Your task to perform on an android device: Show me productivity apps on the Play Store Image 0: 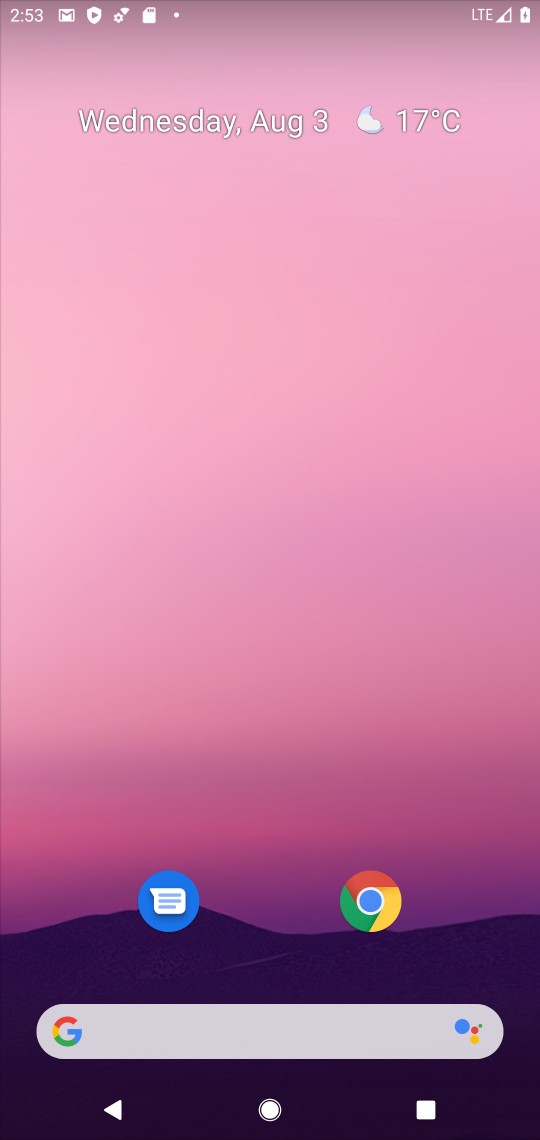
Step 0: drag from (195, 926) to (241, 211)
Your task to perform on an android device: Show me productivity apps on the Play Store Image 1: 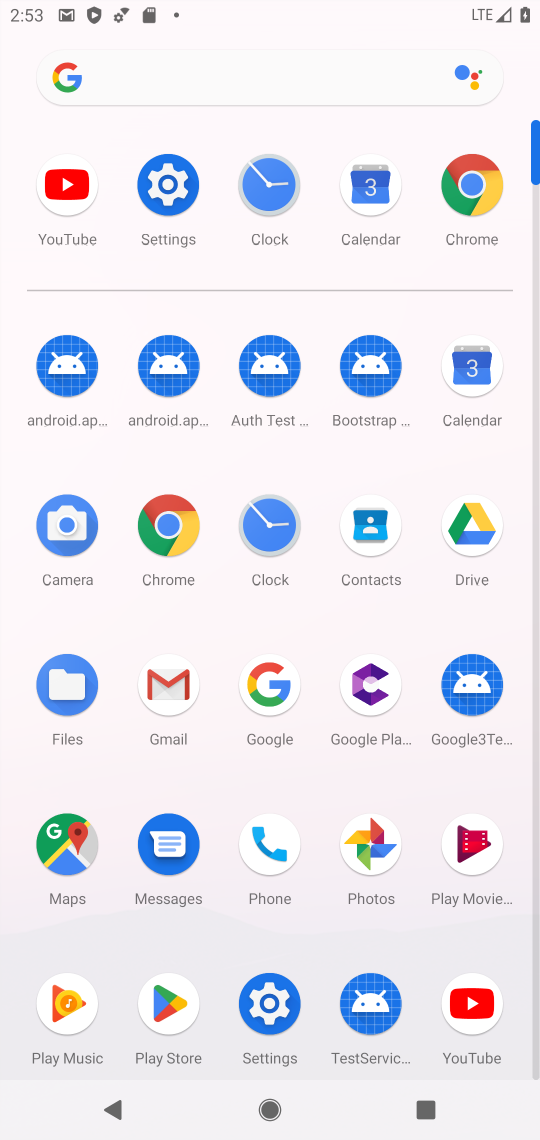
Step 1: click (152, 1031)
Your task to perform on an android device: Show me productivity apps on the Play Store Image 2: 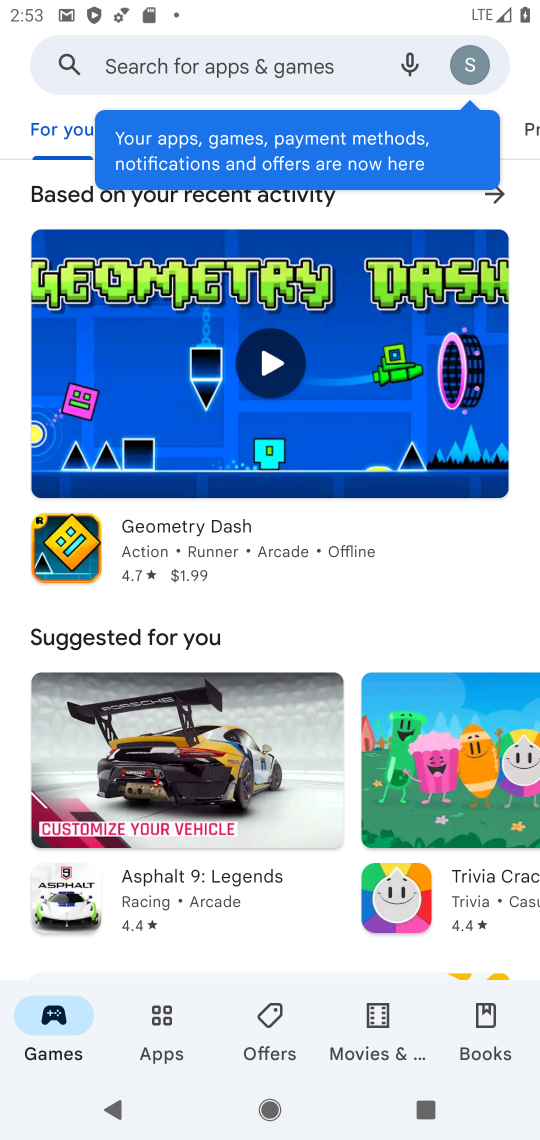
Step 2: click (152, 1031)
Your task to perform on an android device: Show me productivity apps on the Play Store Image 3: 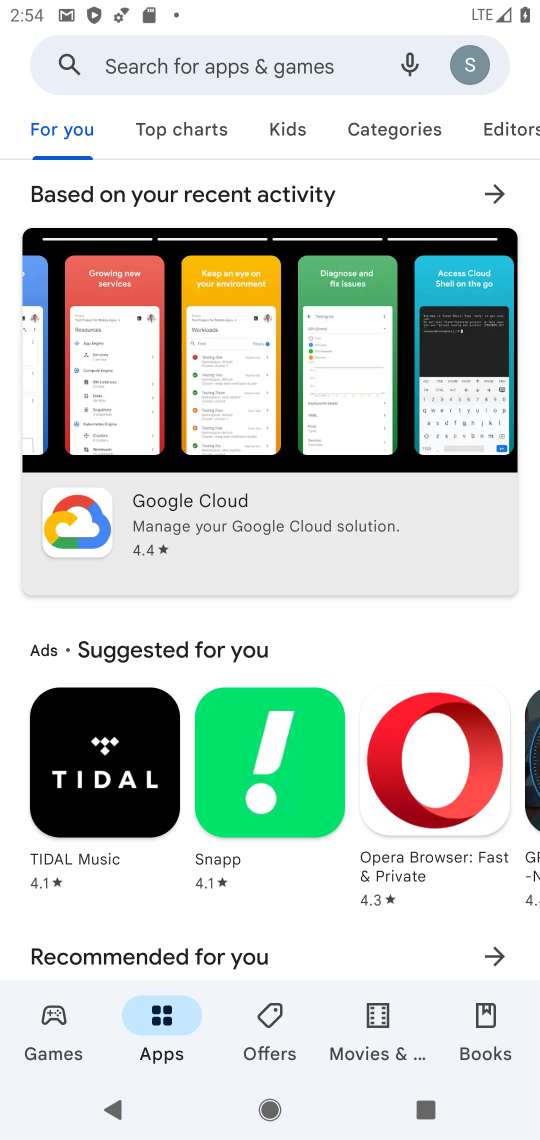
Step 3: task complete